Your task to perform on an android device: Open accessibility settings Image 0: 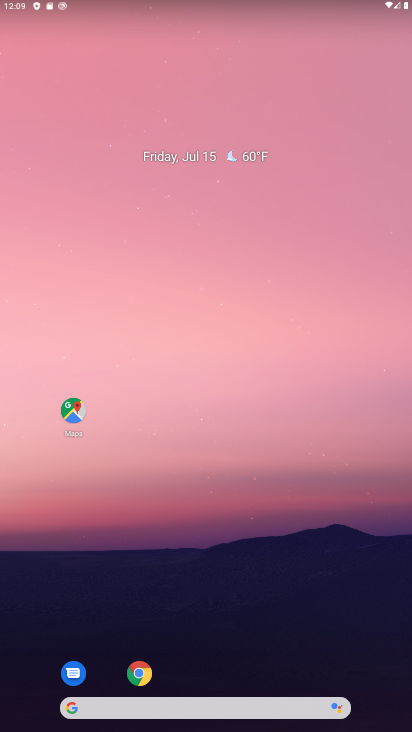
Step 0: drag from (197, 684) to (227, 226)
Your task to perform on an android device: Open accessibility settings Image 1: 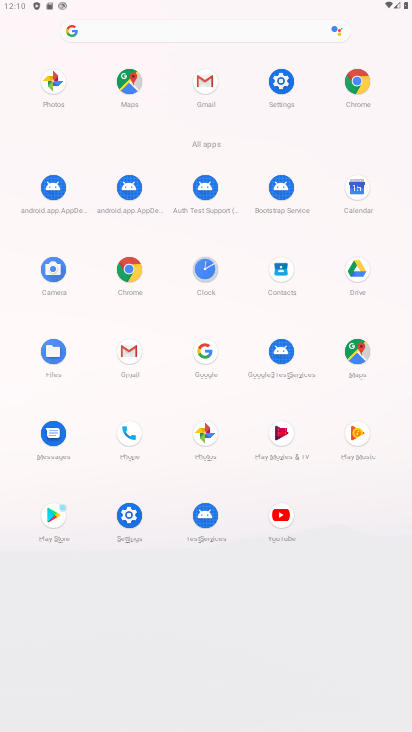
Step 1: click (132, 522)
Your task to perform on an android device: Open accessibility settings Image 2: 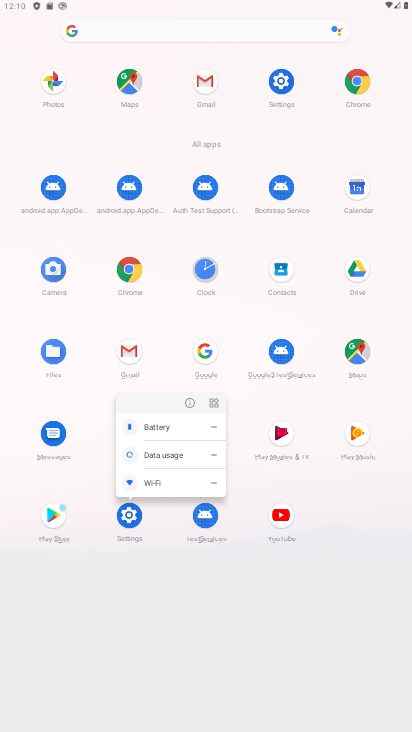
Step 2: click (132, 521)
Your task to perform on an android device: Open accessibility settings Image 3: 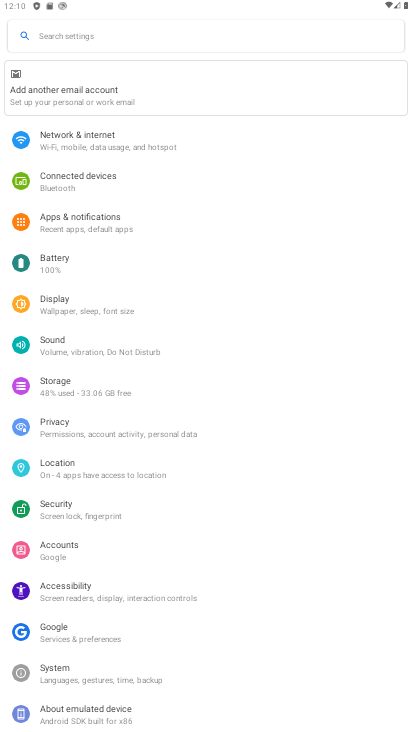
Step 3: click (98, 608)
Your task to perform on an android device: Open accessibility settings Image 4: 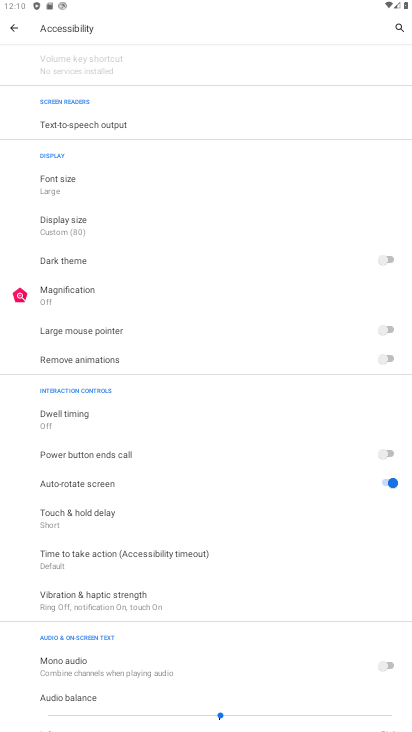
Step 4: task complete